Your task to perform on an android device: Clear the cart on amazon. Image 0: 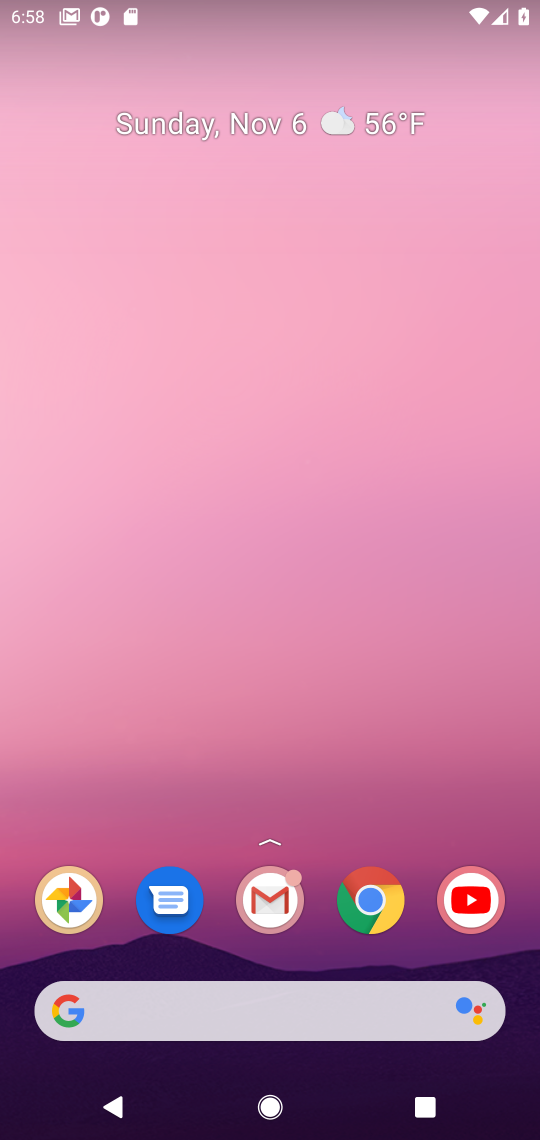
Step 0: drag from (326, 689) to (344, 104)
Your task to perform on an android device: Clear the cart on amazon. Image 1: 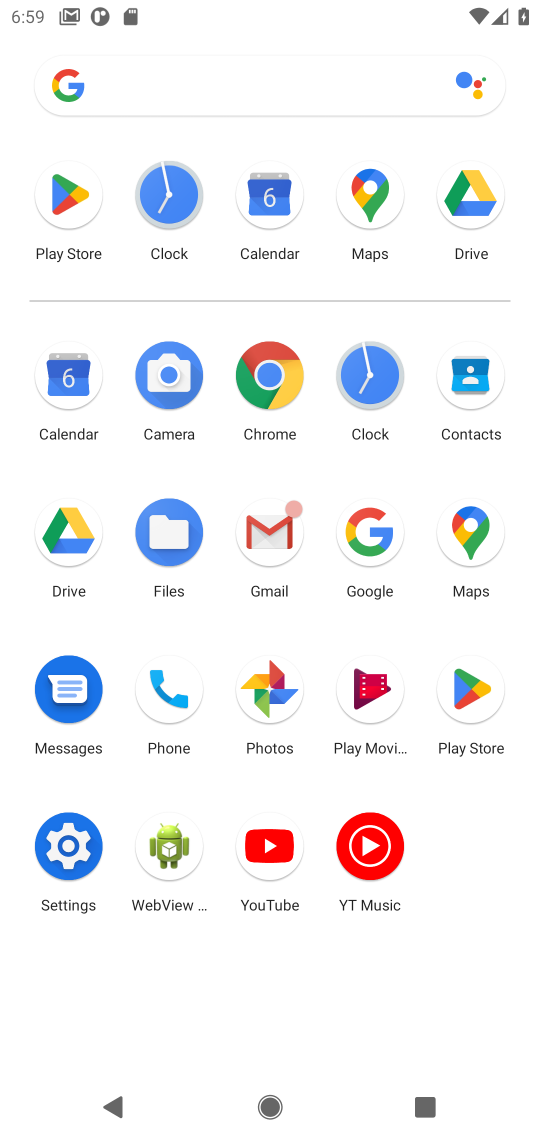
Step 1: click (274, 382)
Your task to perform on an android device: Clear the cart on amazon. Image 2: 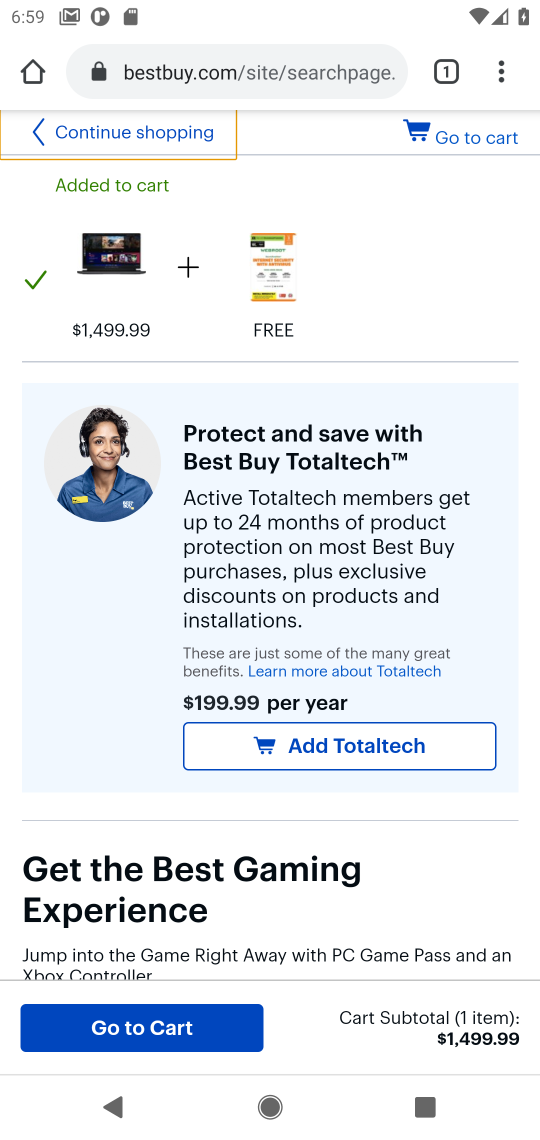
Step 2: click (284, 68)
Your task to perform on an android device: Clear the cart on amazon. Image 3: 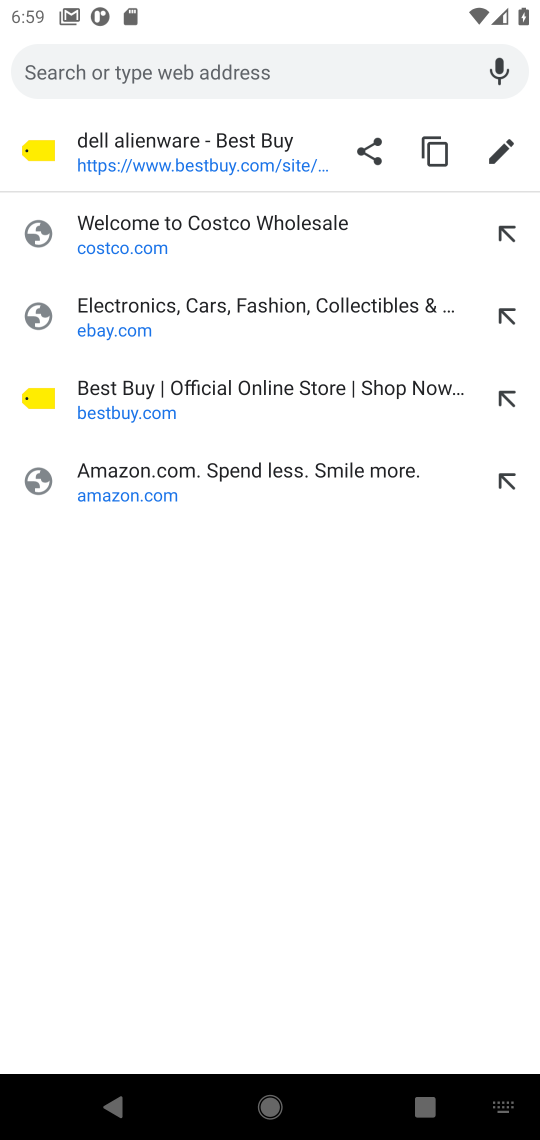
Step 3: type "amazon.com"
Your task to perform on an android device: Clear the cart on amazon. Image 4: 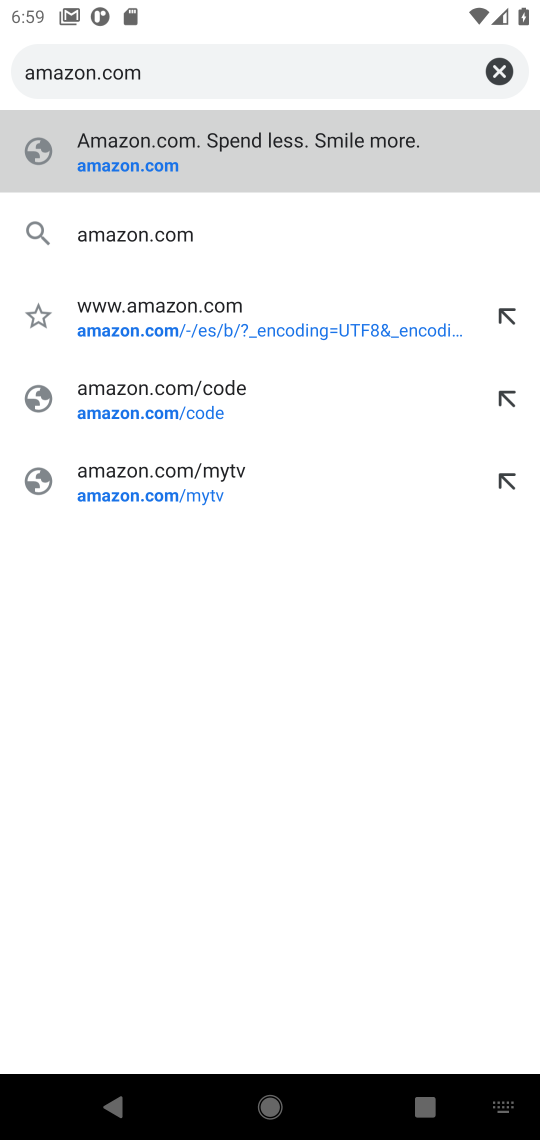
Step 4: press enter
Your task to perform on an android device: Clear the cart on amazon. Image 5: 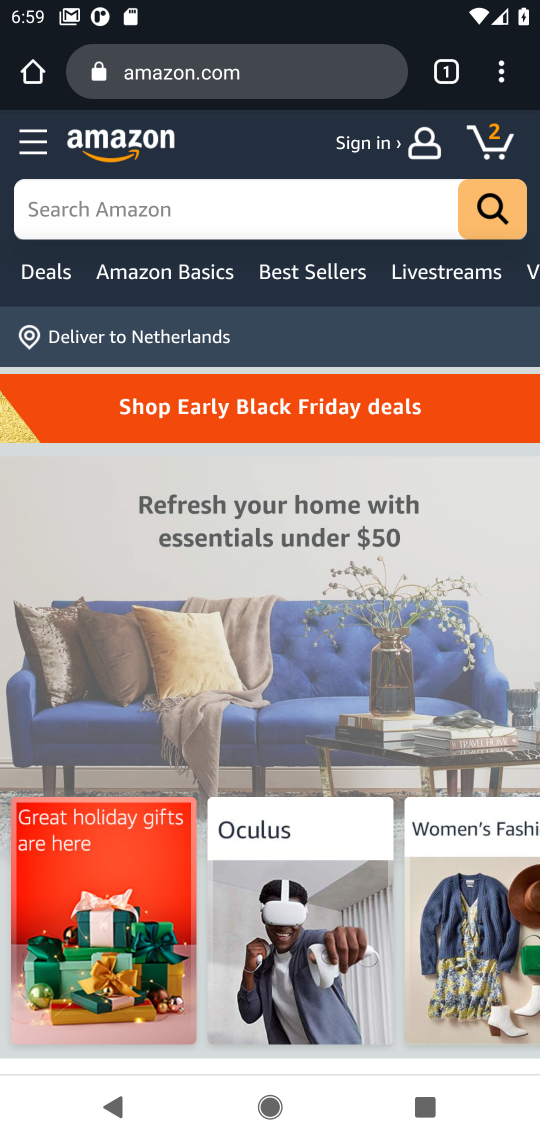
Step 5: click (498, 126)
Your task to perform on an android device: Clear the cart on amazon. Image 6: 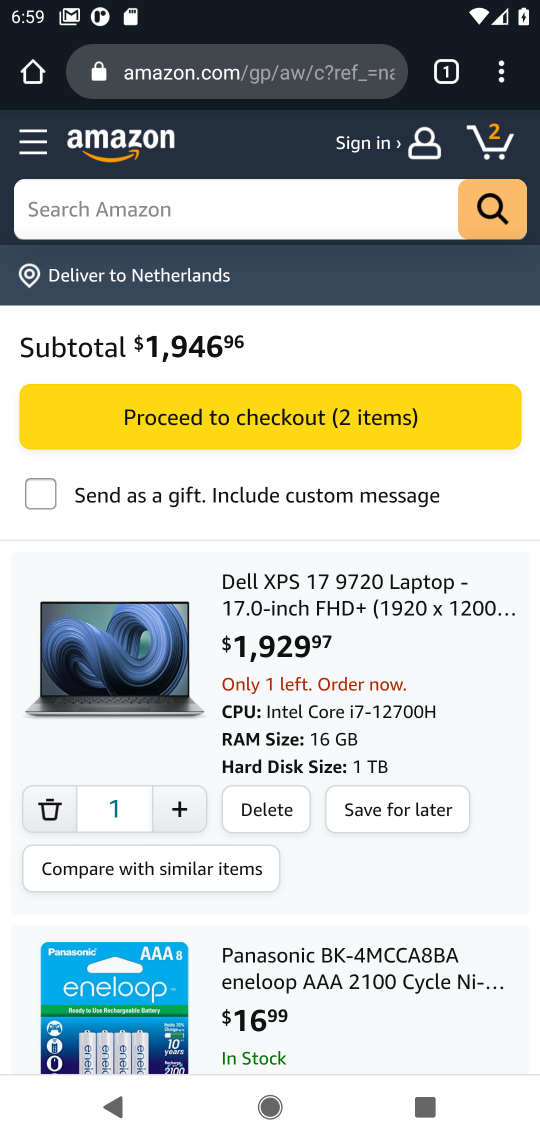
Step 6: click (49, 816)
Your task to perform on an android device: Clear the cart on amazon. Image 7: 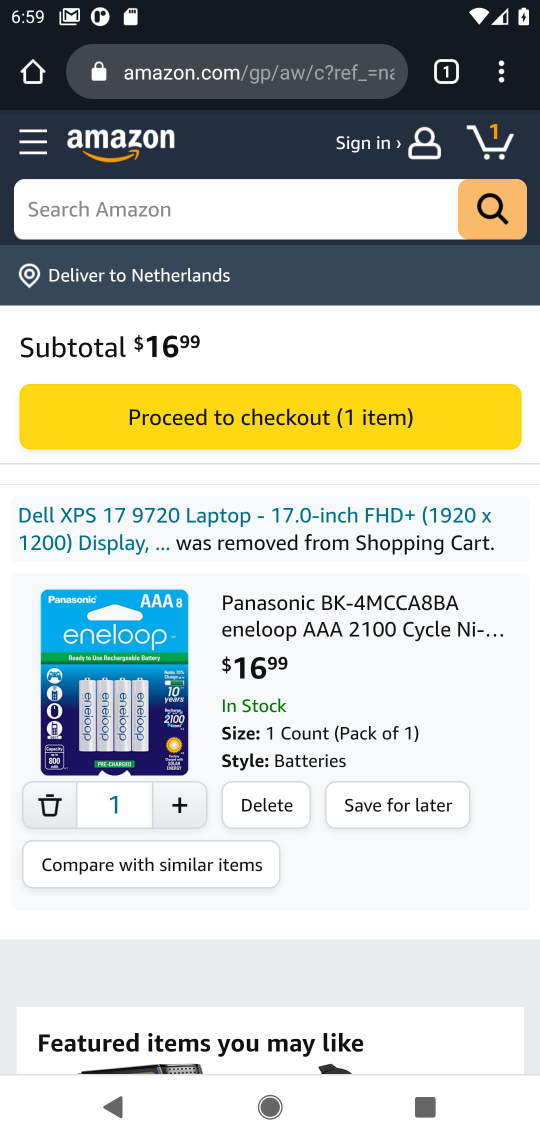
Step 7: click (47, 820)
Your task to perform on an android device: Clear the cart on amazon. Image 8: 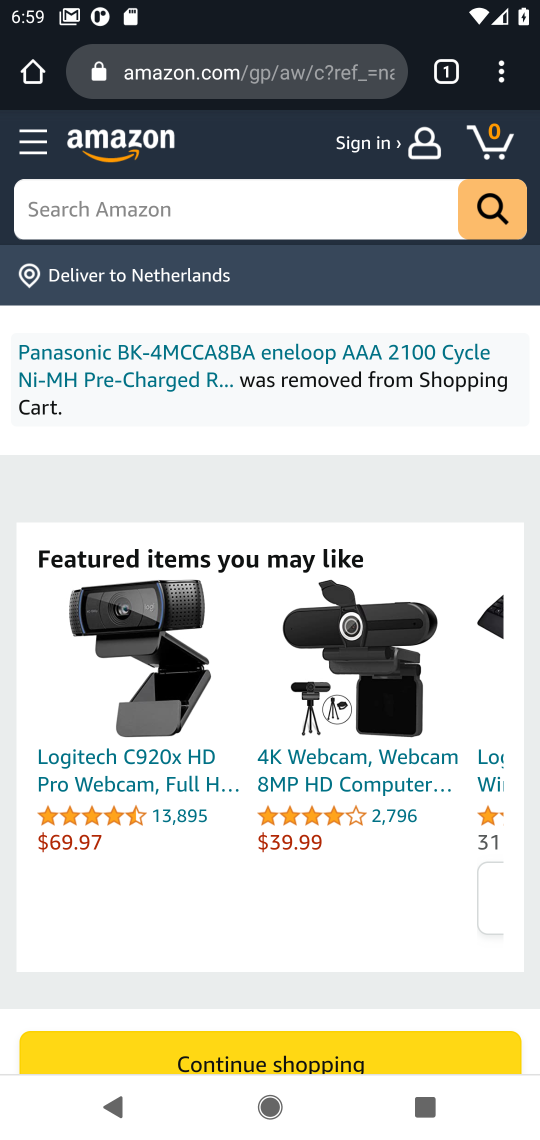
Step 8: task complete